Your task to perform on an android device: Empty the shopping cart on amazon. Search for logitech g933 on amazon, select the first entry, and add it to the cart. Image 0: 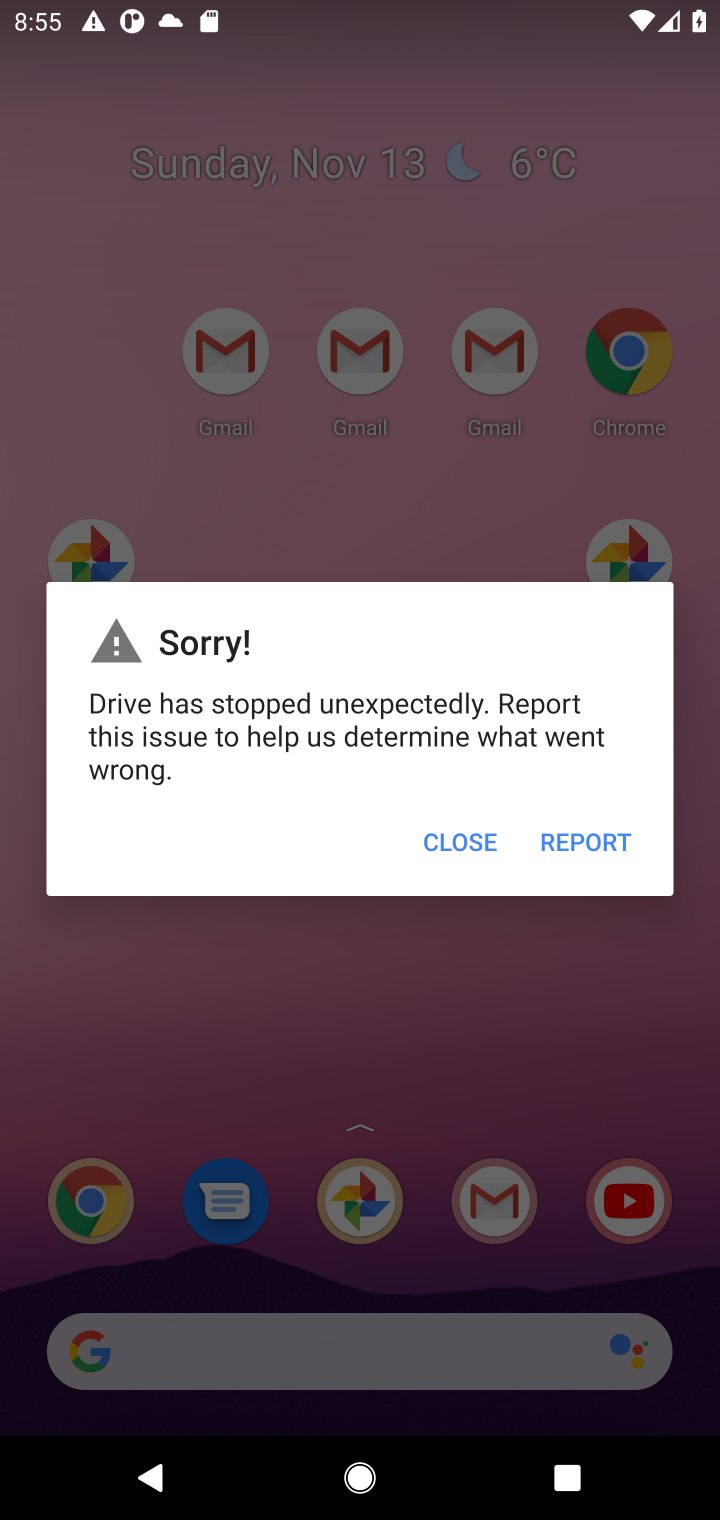
Step 0: press home button
Your task to perform on an android device: Empty the shopping cart on amazon. Search for logitech g933 on amazon, select the first entry, and add it to the cart. Image 1: 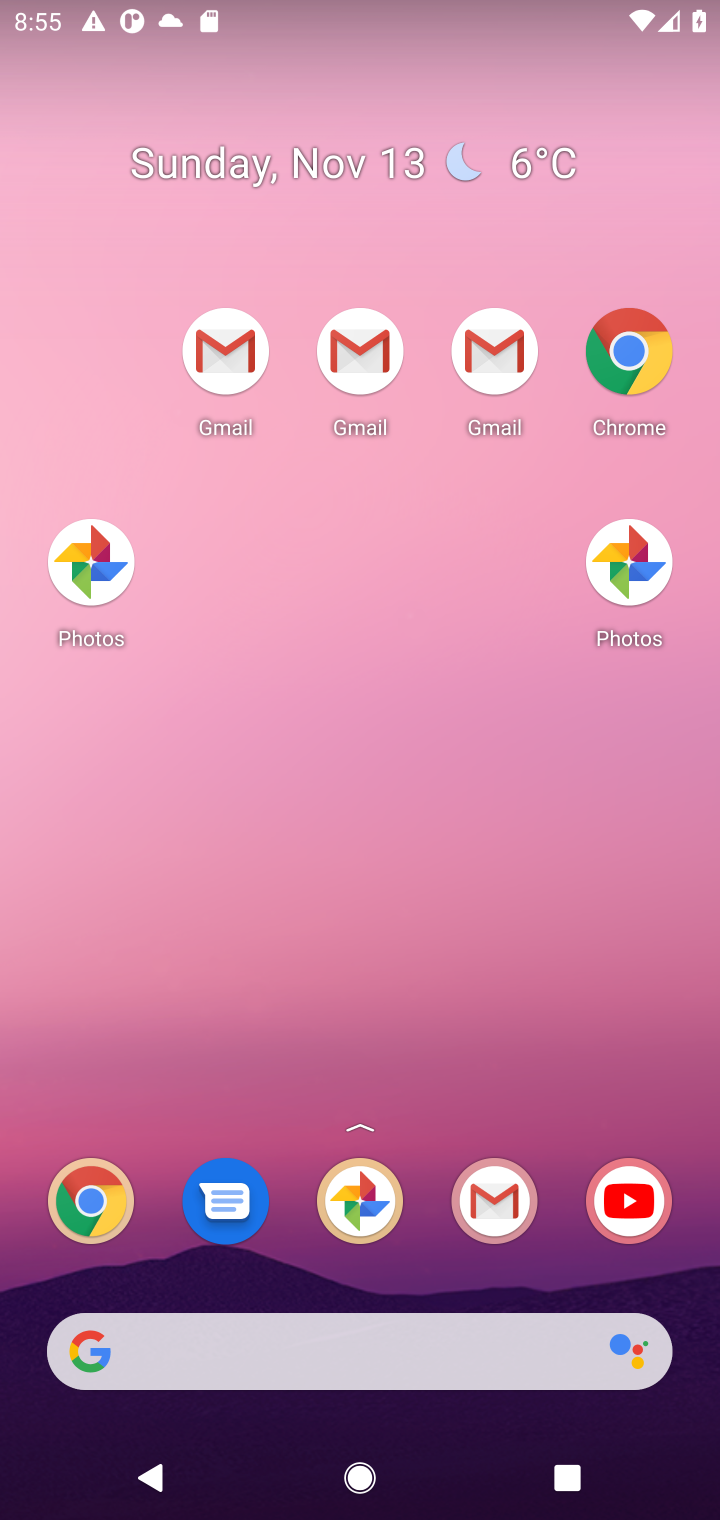
Step 1: drag from (411, 1248) to (535, 339)
Your task to perform on an android device: Empty the shopping cart on amazon. Search for logitech g933 on amazon, select the first entry, and add it to the cart. Image 2: 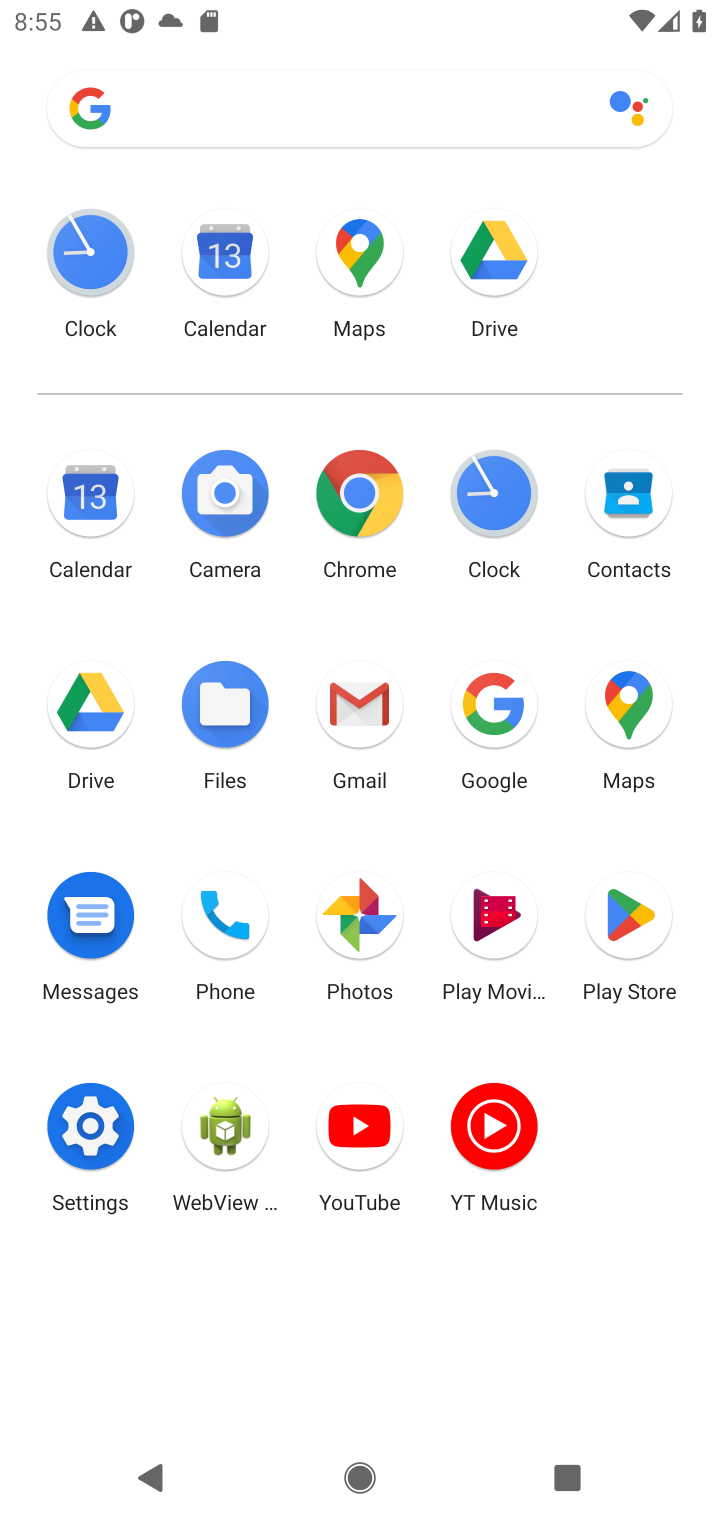
Step 2: click (361, 493)
Your task to perform on an android device: Empty the shopping cart on amazon. Search for logitech g933 on amazon, select the first entry, and add it to the cart. Image 3: 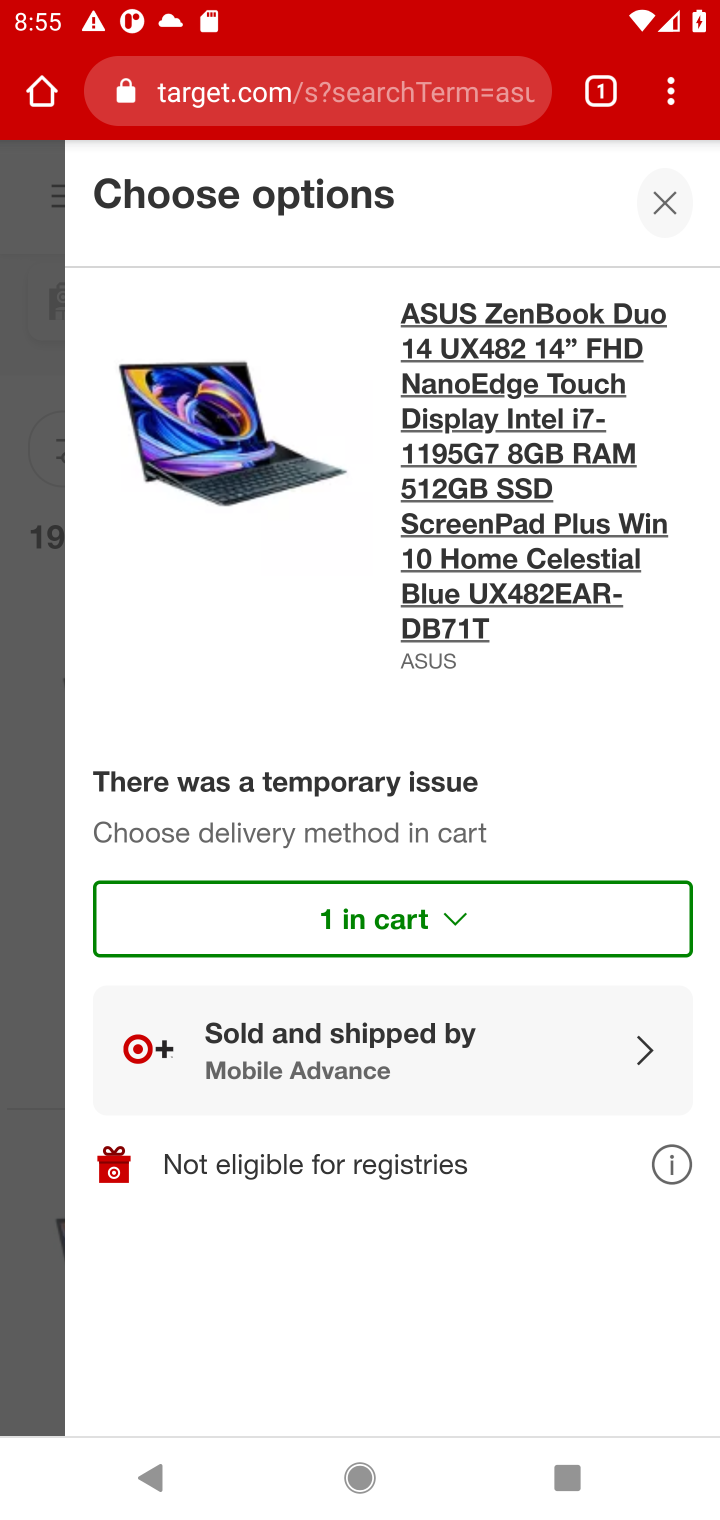
Step 3: click (390, 119)
Your task to perform on an android device: Empty the shopping cart on amazon. Search for logitech g933 on amazon, select the first entry, and add it to the cart. Image 4: 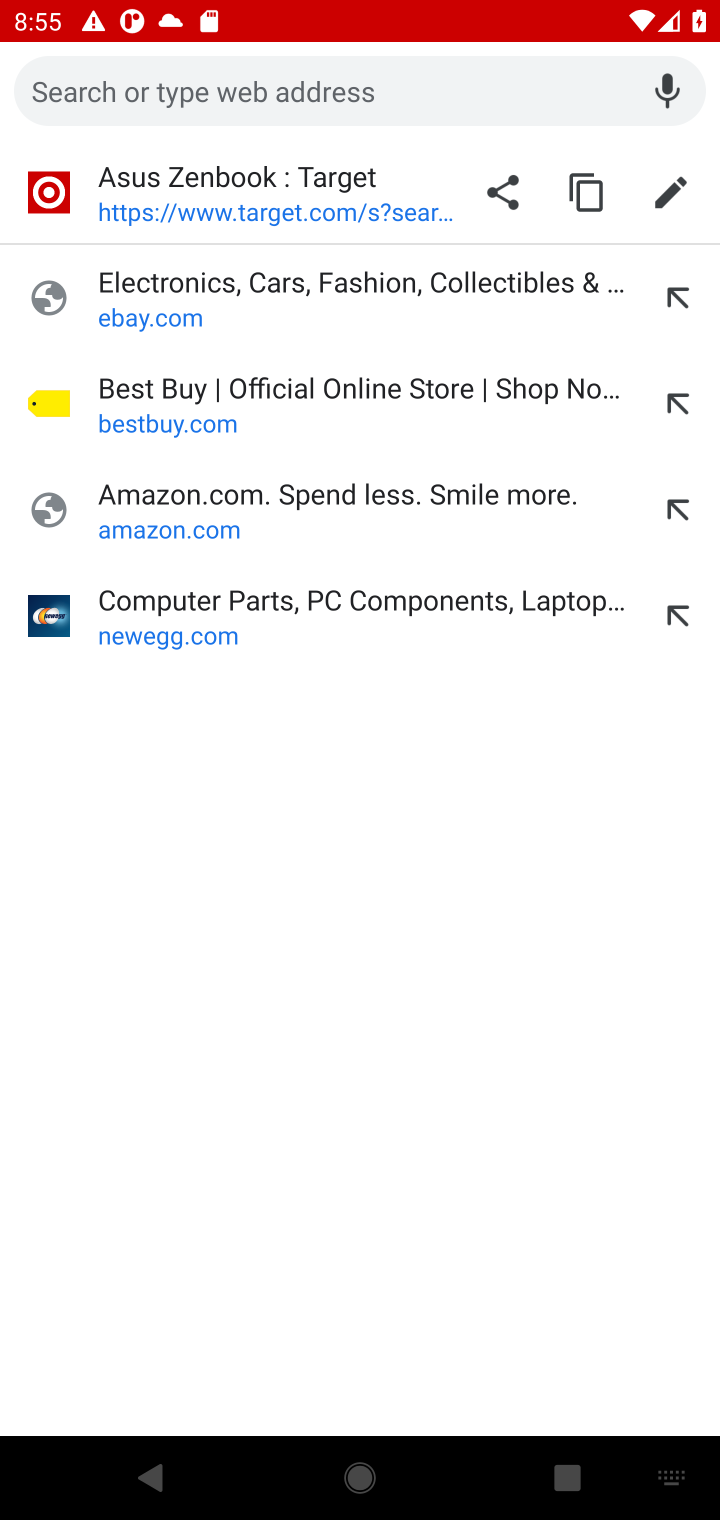
Step 4: type "amazon.com"
Your task to perform on an android device: Empty the shopping cart on amazon. Search for logitech g933 on amazon, select the first entry, and add it to the cart. Image 5: 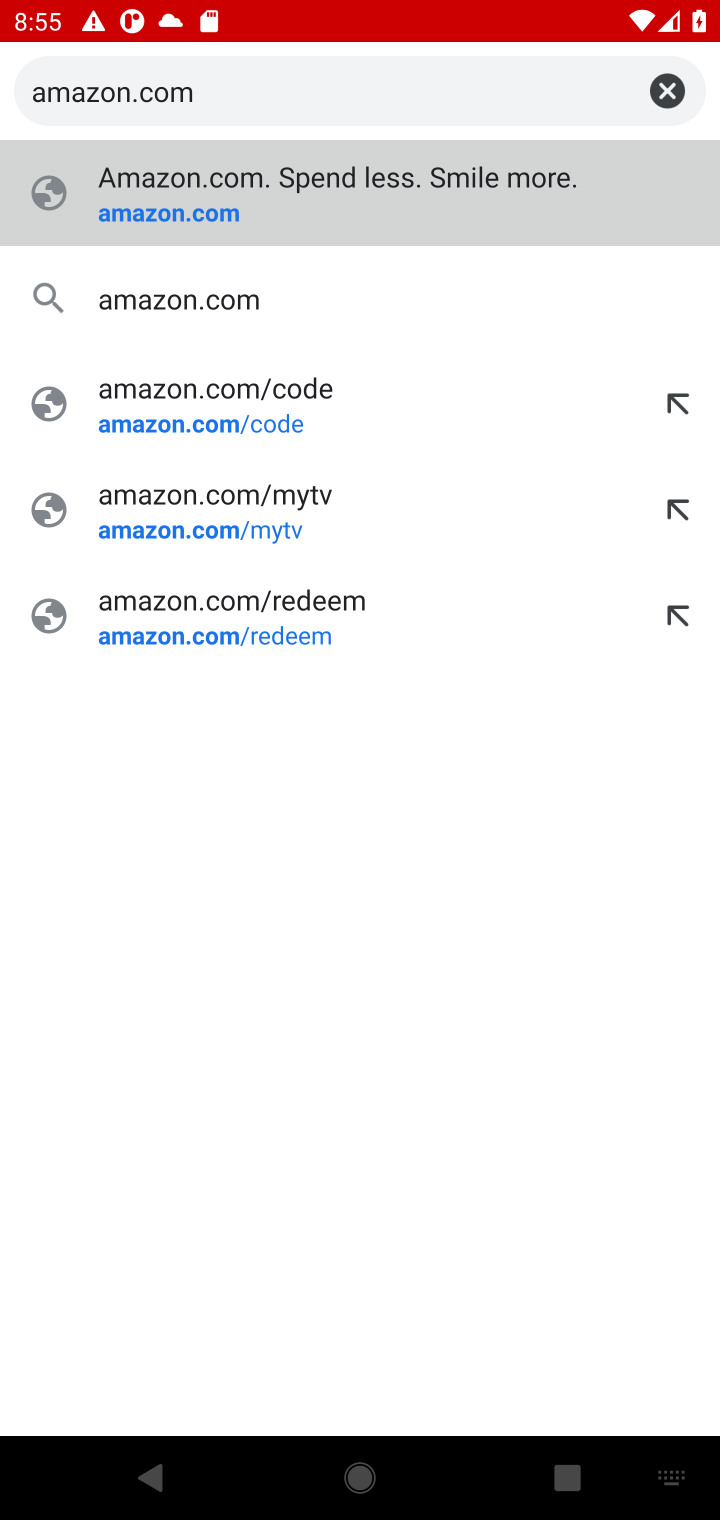
Step 5: press enter
Your task to perform on an android device: Empty the shopping cart on amazon. Search for logitech g933 on amazon, select the first entry, and add it to the cart. Image 6: 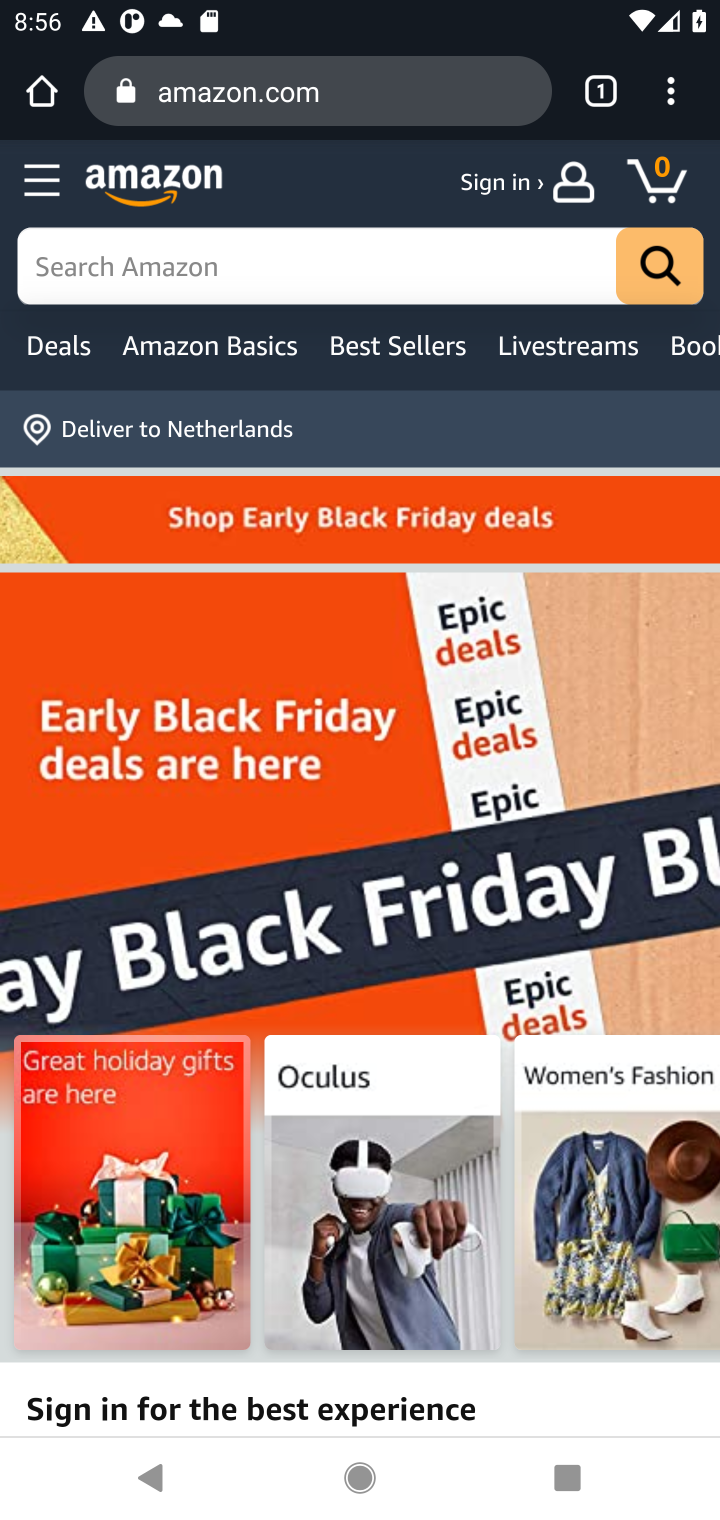
Step 6: click (664, 170)
Your task to perform on an android device: Empty the shopping cart on amazon. Search for logitech g933 on amazon, select the first entry, and add it to the cart. Image 7: 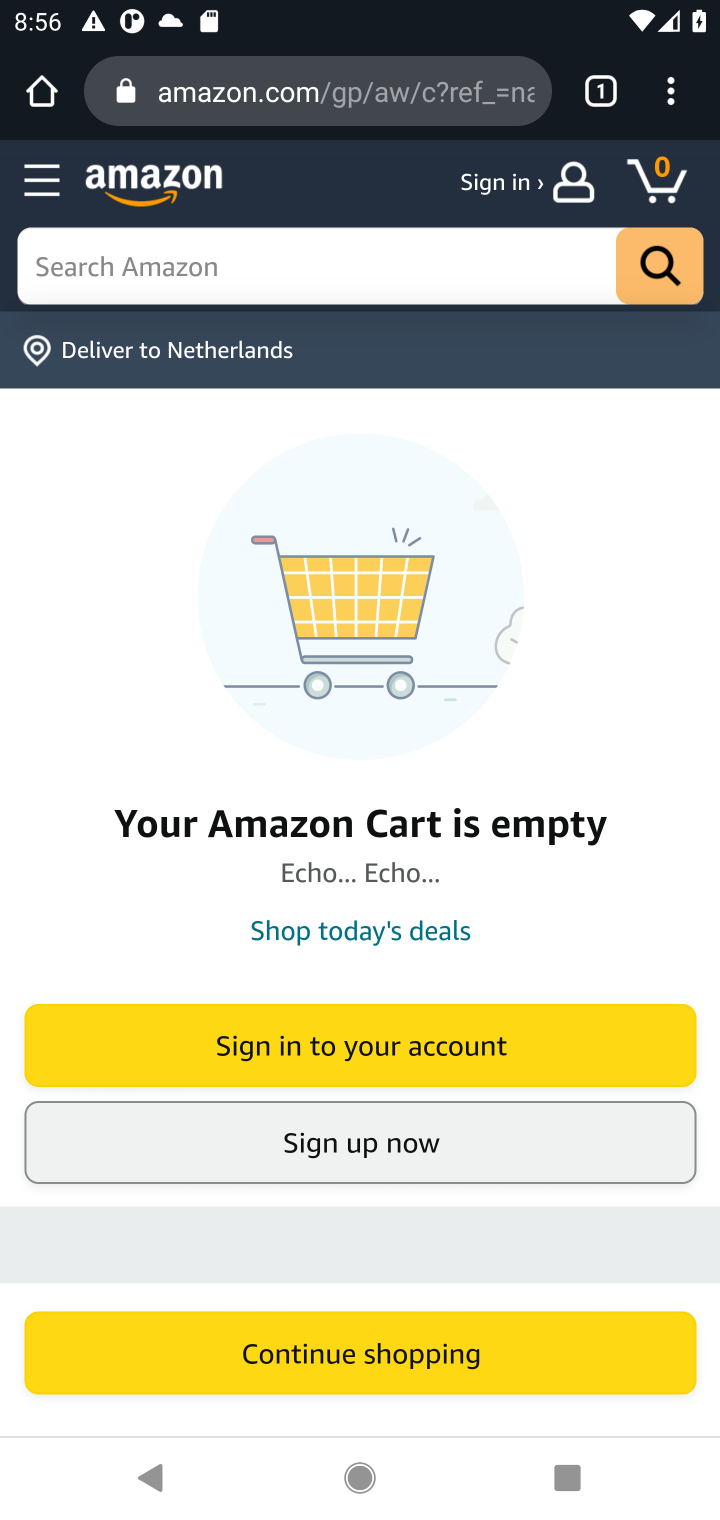
Step 7: click (380, 257)
Your task to perform on an android device: Empty the shopping cart on amazon. Search for logitech g933 on amazon, select the first entry, and add it to the cart. Image 8: 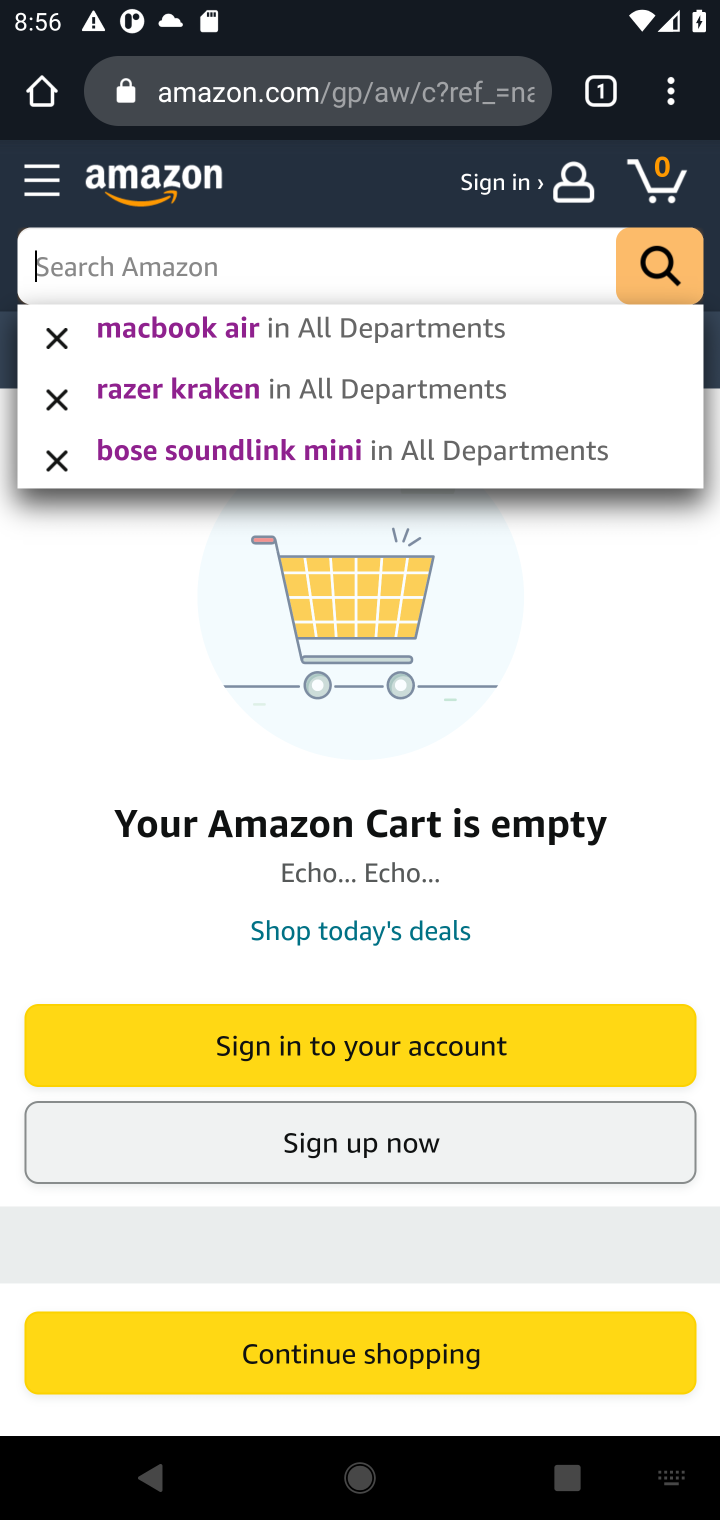
Step 8: type "logitech g933"
Your task to perform on an android device: Empty the shopping cart on amazon. Search for logitech g933 on amazon, select the first entry, and add it to the cart. Image 9: 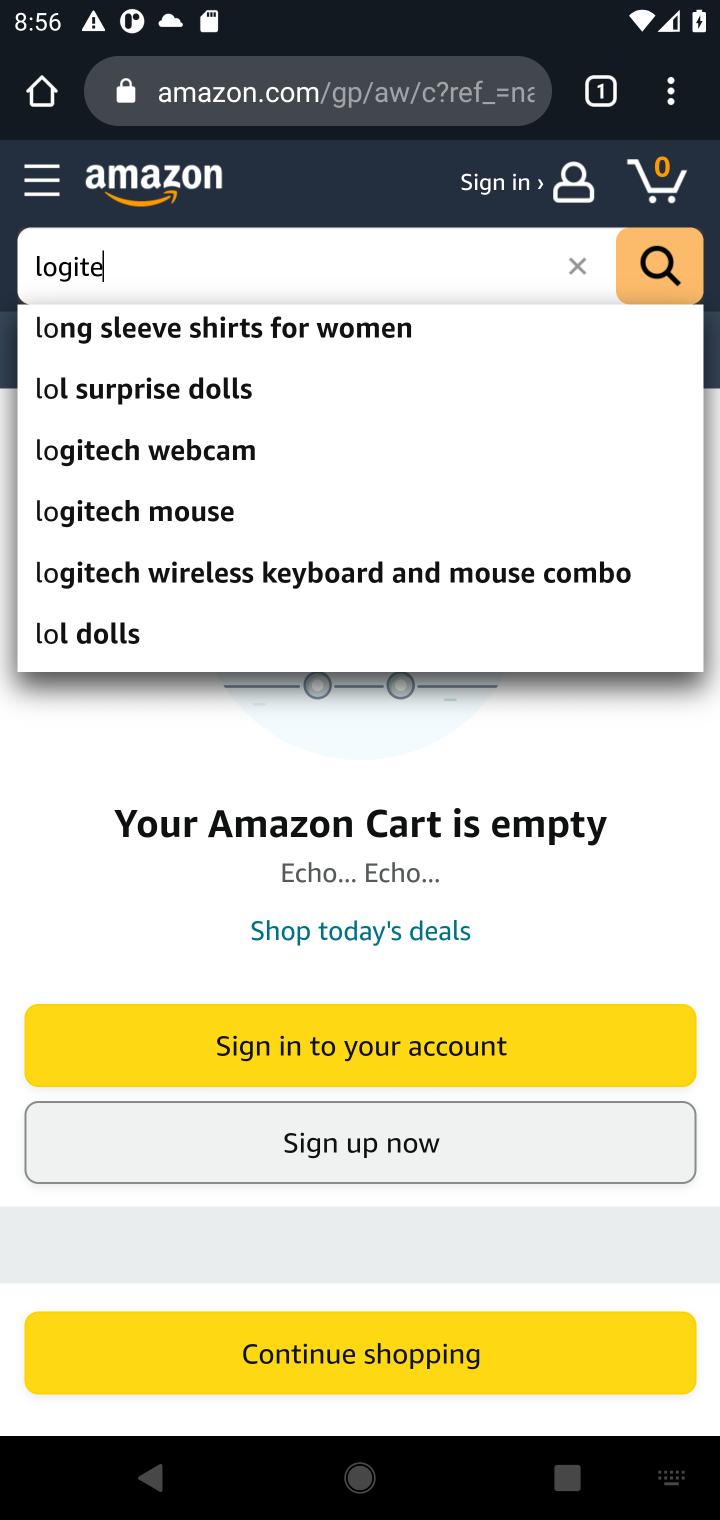
Step 9: press enter
Your task to perform on an android device: Empty the shopping cart on amazon. Search for logitech g933 on amazon, select the first entry, and add it to the cart. Image 10: 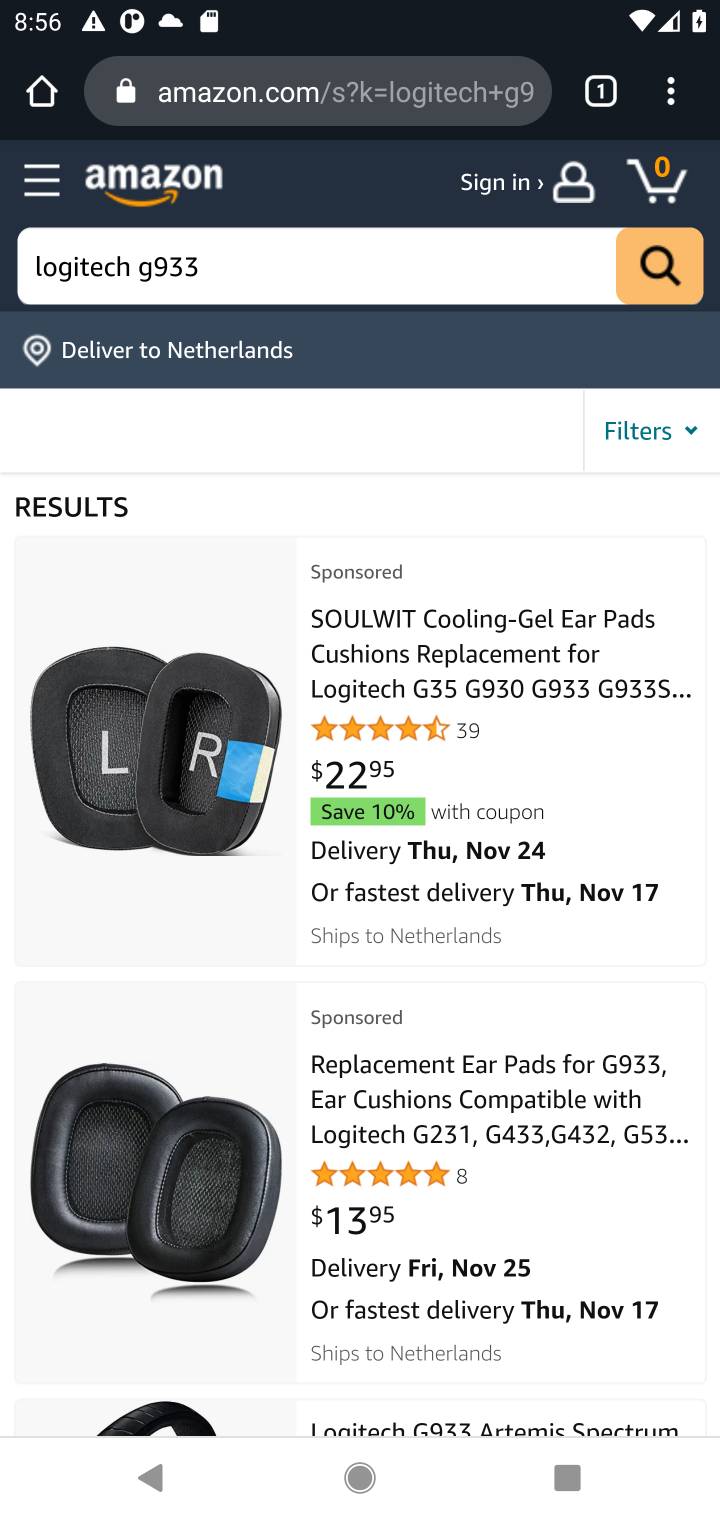
Step 10: drag from (455, 1210) to (475, 517)
Your task to perform on an android device: Empty the shopping cart on amazon. Search for logitech g933 on amazon, select the first entry, and add it to the cart. Image 11: 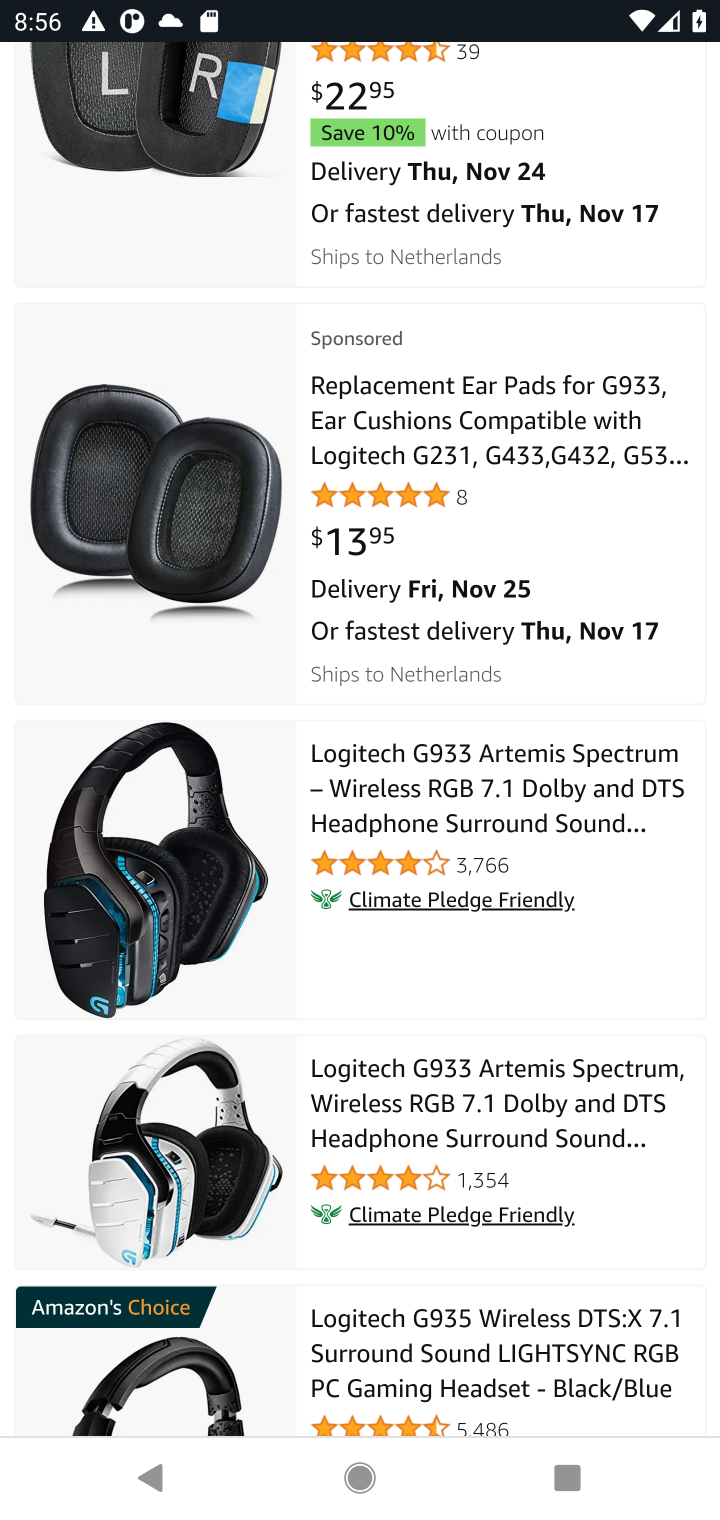
Step 11: click (496, 756)
Your task to perform on an android device: Empty the shopping cart on amazon. Search for logitech g933 on amazon, select the first entry, and add it to the cart. Image 12: 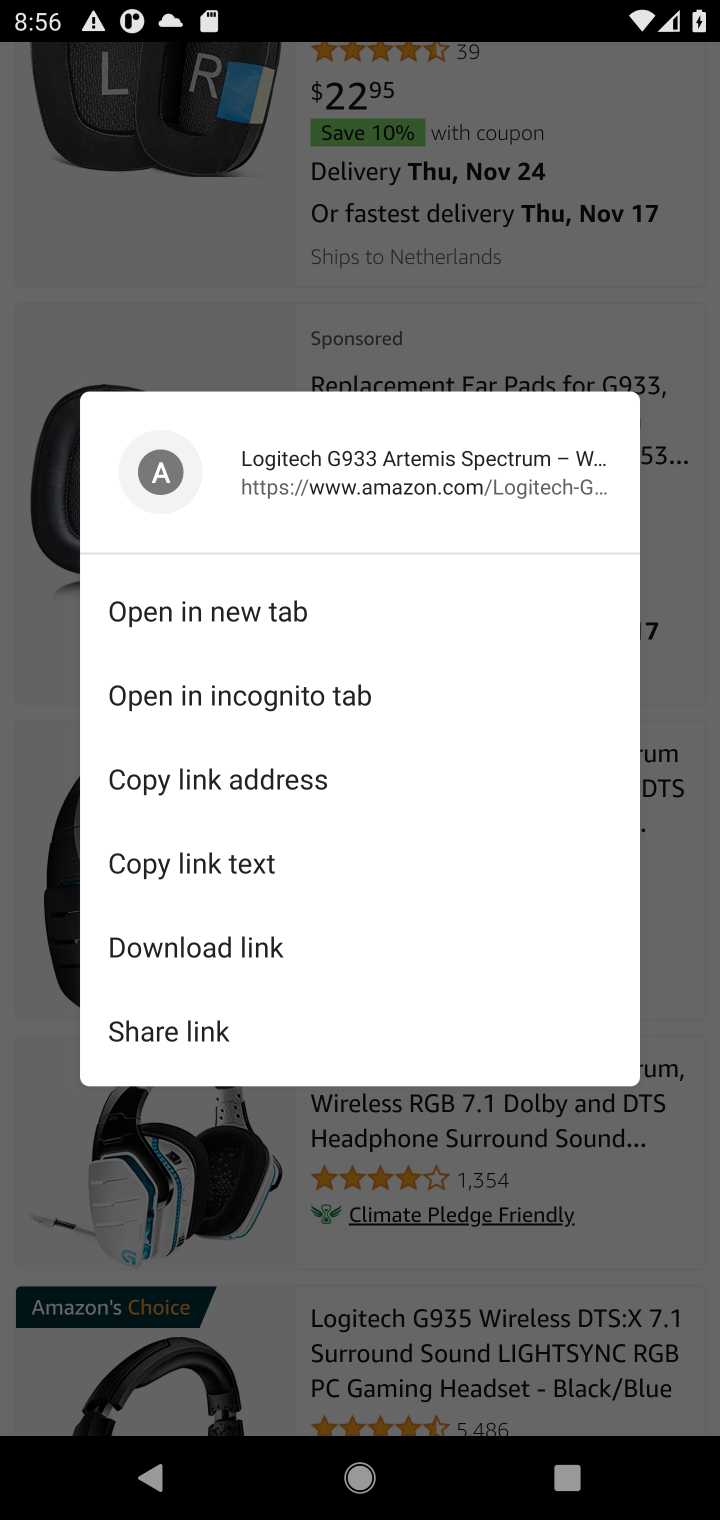
Step 12: click (695, 669)
Your task to perform on an android device: Empty the shopping cart on amazon. Search for logitech g933 on amazon, select the first entry, and add it to the cart. Image 13: 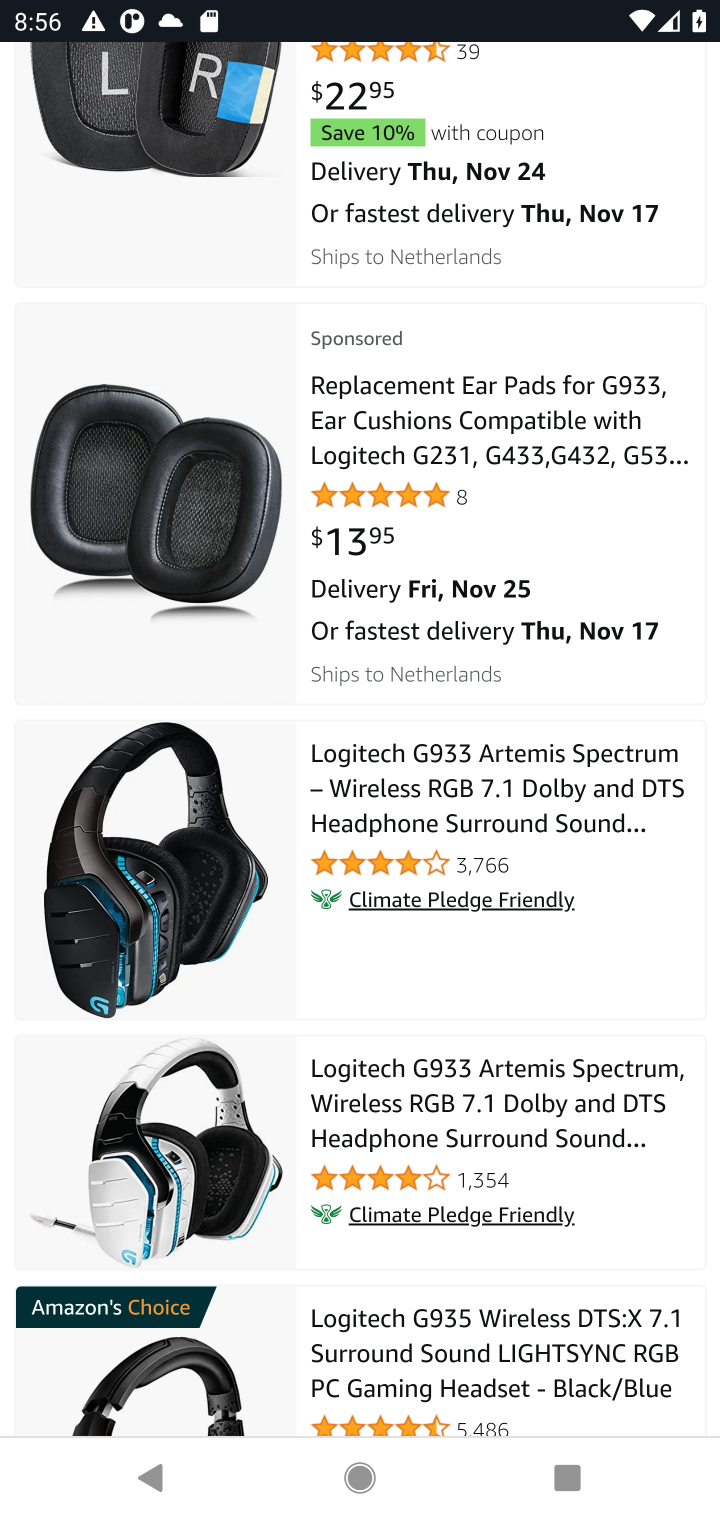
Step 13: click (534, 801)
Your task to perform on an android device: Empty the shopping cart on amazon. Search for logitech g933 on amazon, select the first entry, and add it to the cart. Image 14: 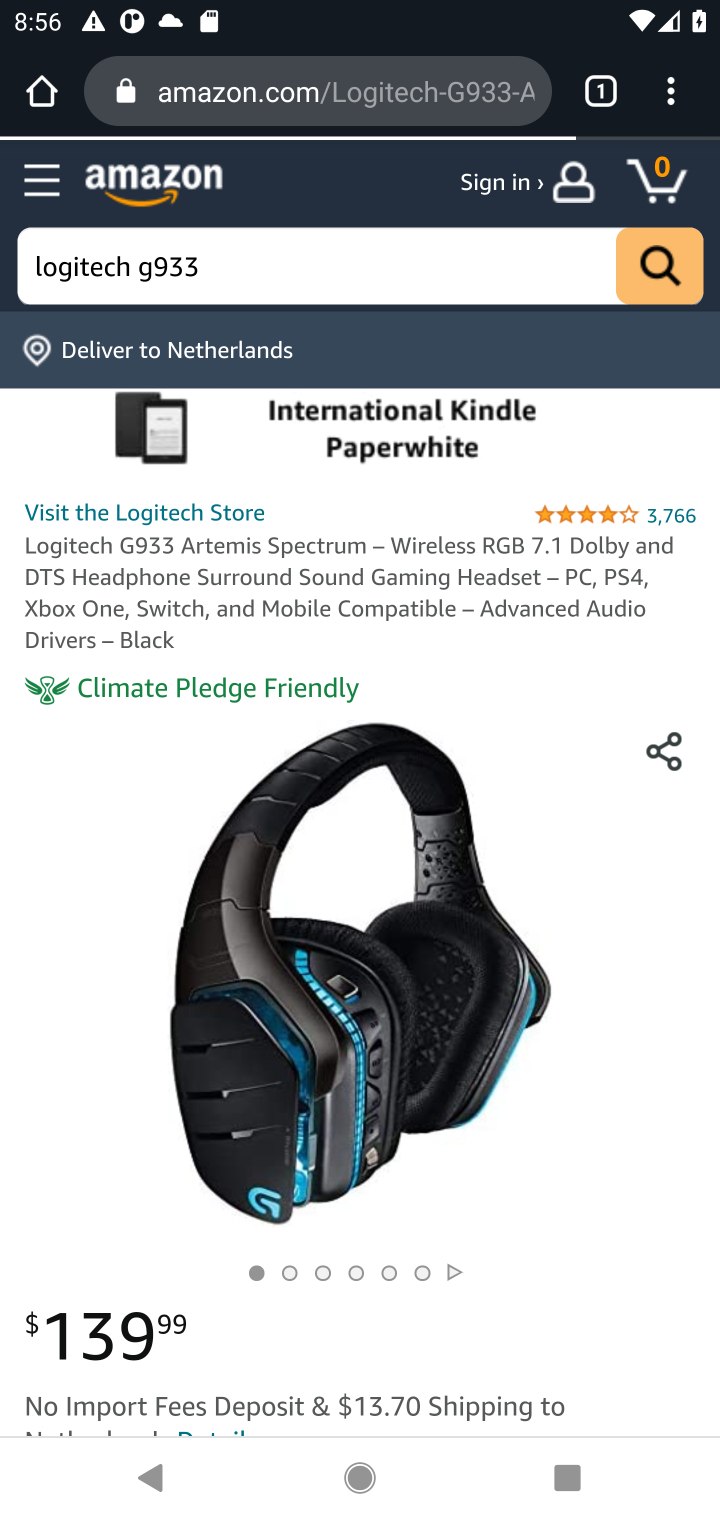
Step 14: drag from (498, 1204) to (523, 573)
Your task to perform on an android device: Empty the shopping cart on amazon. Search for logitech g933 on amazon, select the first entry, and add it to the cart. Image 15: 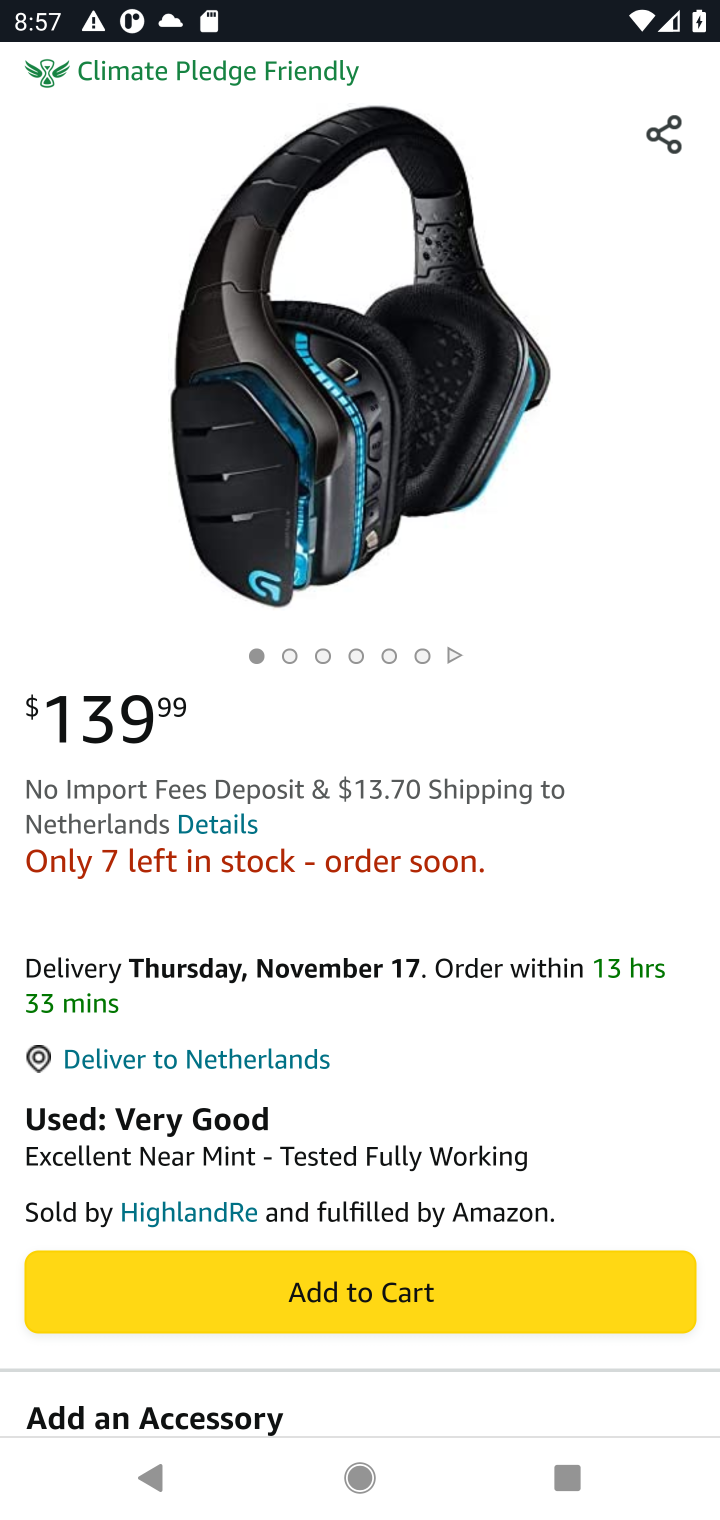
Step 15: click (531, 1308)
Your task to perform on an android device: Empty the shopping cart on amazon. Search for logitech g933 on amazon, select the first entry, and add it to the cart. Image 16: 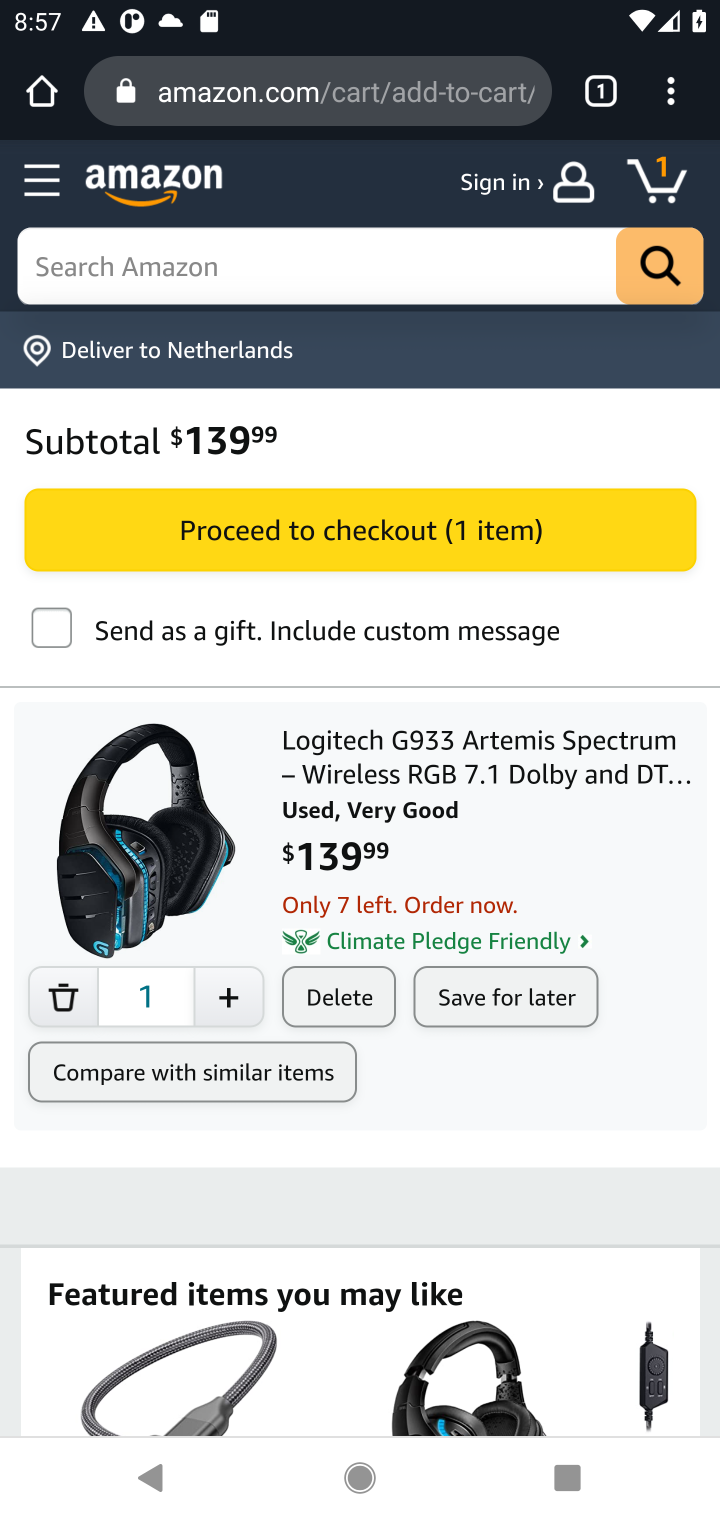
Step 16: task complete